Your task to perform on an android device: Show me popular videos on Youtube Image 0: 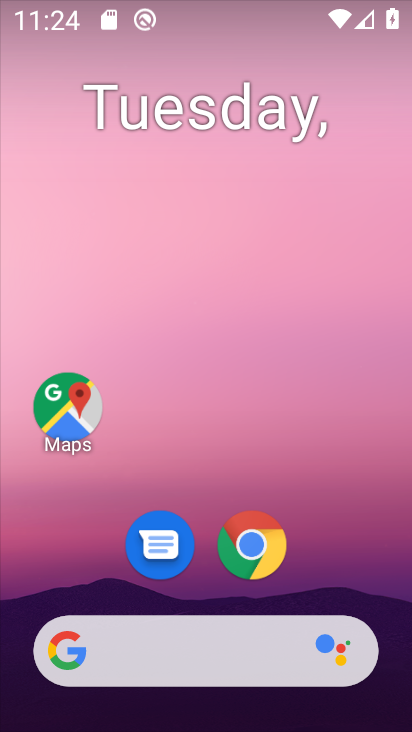
Step 0: drag from (349, 558) to (352, 62)
Your task to perform on an android device: Show me popular videos on Youtube Image 1: 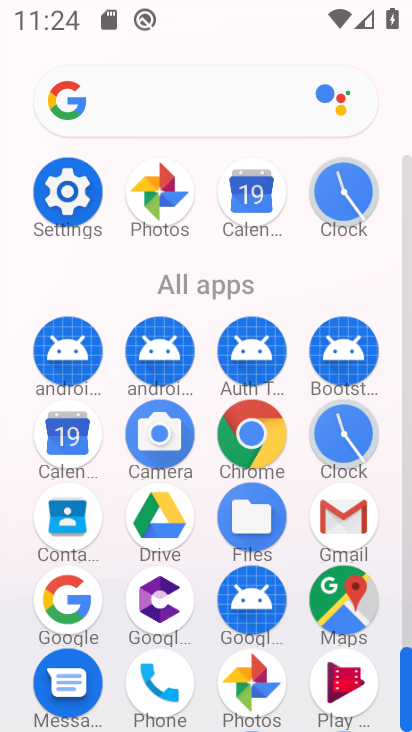
Step 1: drag from (296, 491) to (308, 138)
Your task to perform on an android device: Show me popular videos on Youtube Image 2: 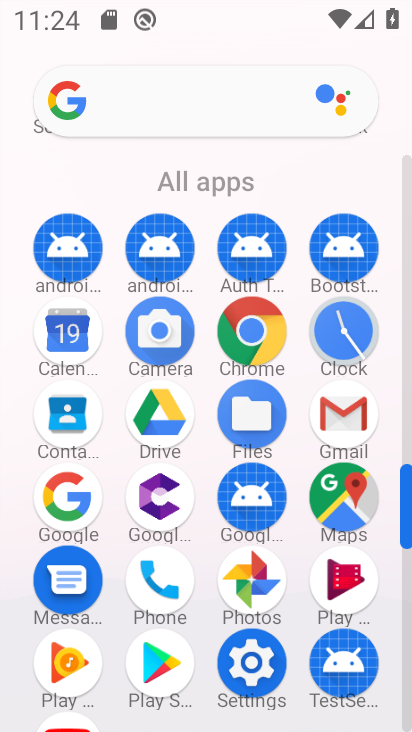
Step 2: drag from (289, 459) to (293, 150)
Your task to perform on an android device: Show me popular videos on Youtube Image 3: 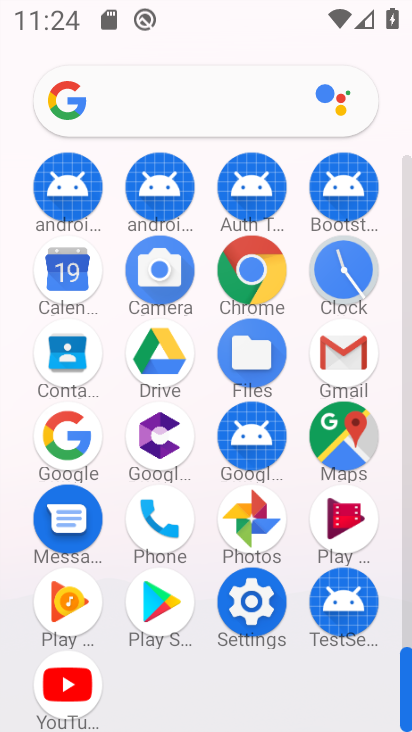
Step 3: click (77, 673)
Your task to perform on an android device: Show me popular videos on Youtube Image 4: 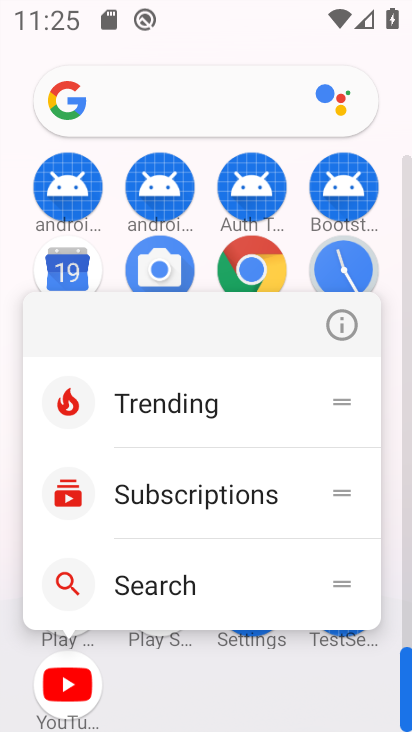
Step 4: click (83, 673)
Your task to perform on an android device: Show me popular videos on Youtube Image 5: 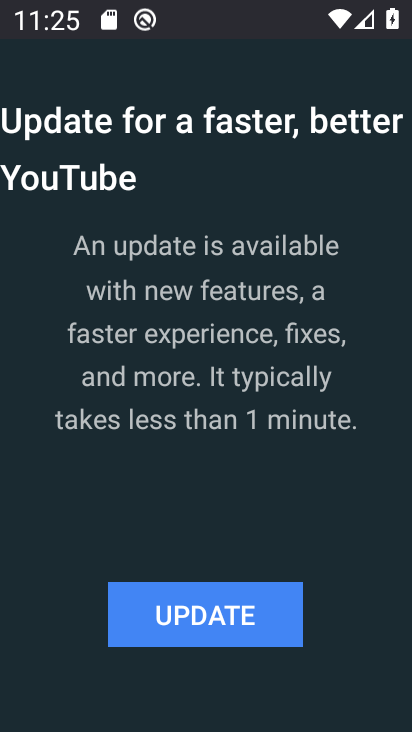
Step 5: click (172, 631)
Your task to perform on an android device: Show me popular videos on Youtube Image 6: 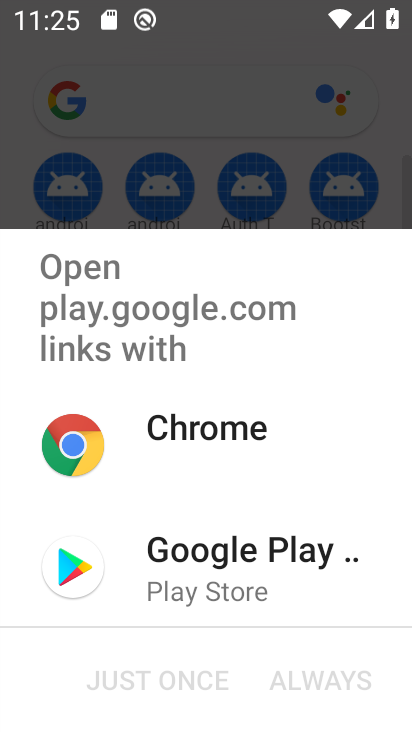
Step 6: click (197, 569)
Your task to perform on an android device: Show me popular videos on Youtube Image 7: 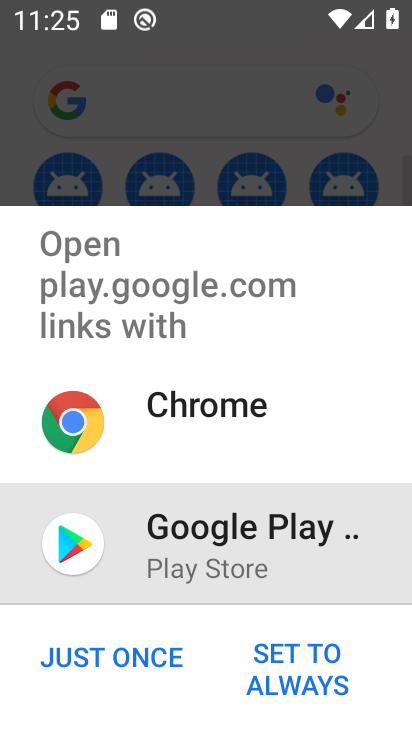
Step 7: click (273, 648)
Your task to perform on an android device: Show me popular videos on Youtube Image 8: 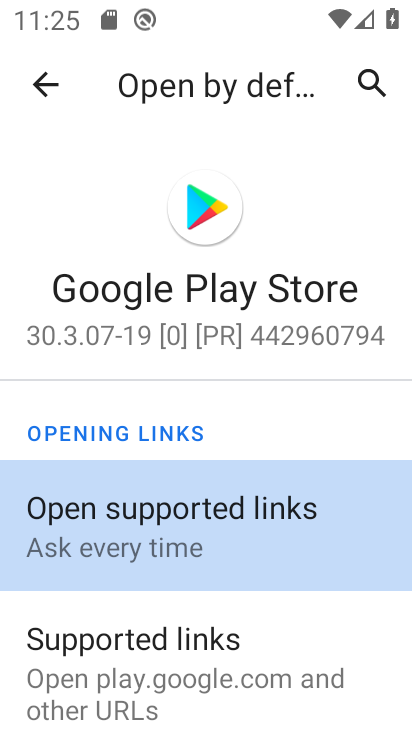
Step 8: click (318, 516)
Your task to perform on an android device: Show me popular videos on Youtube Image 9: 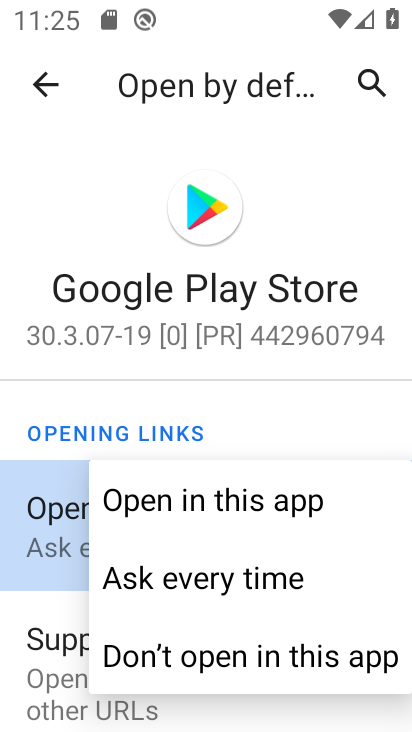
Step 9: click (318, 516)
Your task to perform on an android device: Show me popular videos on Youtube Image 10: 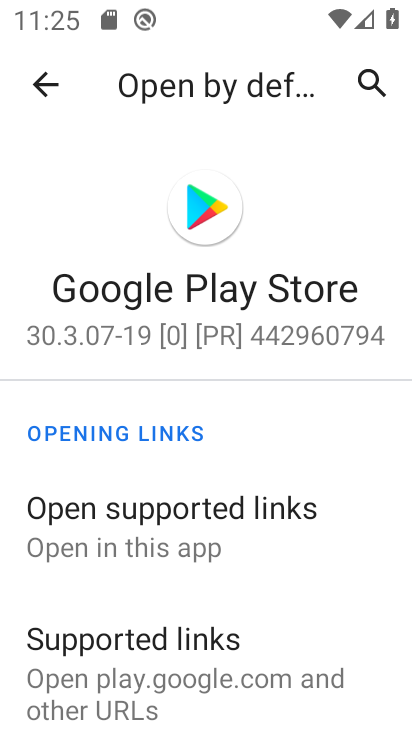
Step 10: task complete